Your task to perform on an android device: add a contact Image 0: 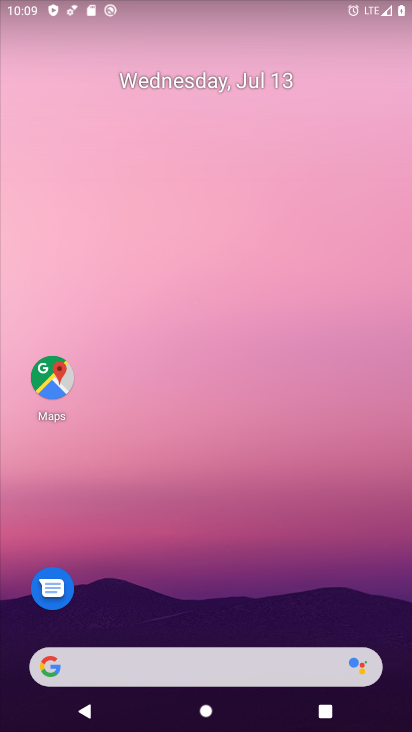
Step 0: drag from (136, 712) to (246, 22)
Your task to perform on an android device: add a contact Image 1: 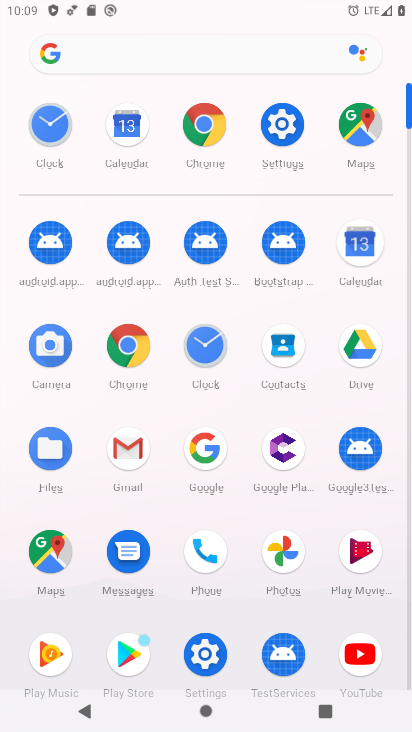
Step 1: click (287, 349)
Your task to perform on an android device: add a contact Image 2: 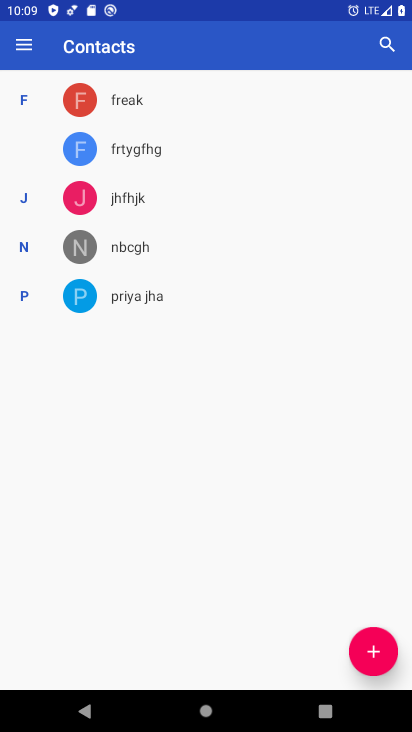
Step 2: click (398, 652)
Your task to perform on an android device: add a contact Image 3: 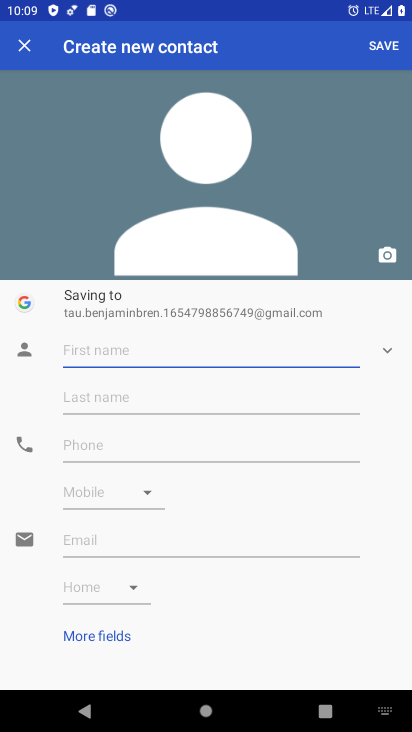
Step 3: type "ikhghk,"
Your task to perform on an android device: add a contact Image 4: 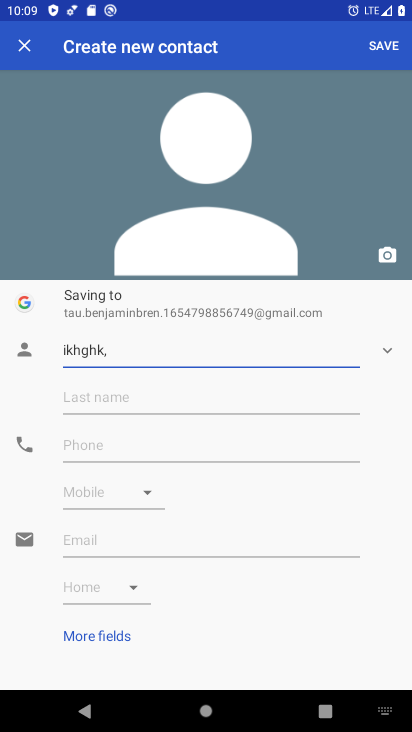
Step 4: click (226, 450)
Your task to perform on an android device: add a contact Image 5: 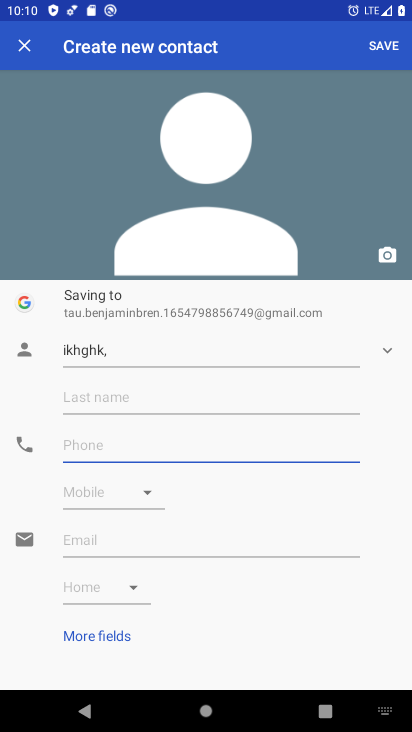
Step 5: type "7888"
Your task to perform on an android device: add a contact Image 6: 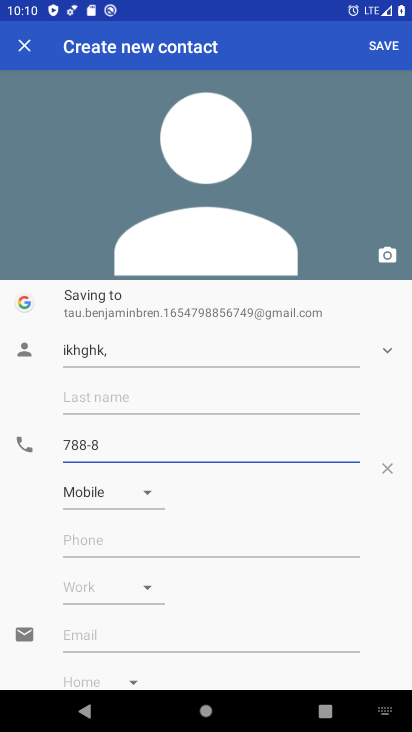
Step 6: click (391, 42)
Your task to perform on an android device: add a contact Image 7: 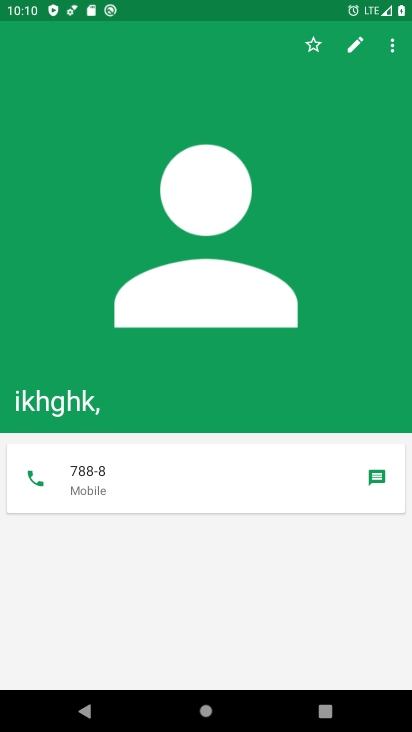
Step 7: task complete